Your task to perform on an android device: Search for handmade jewelry on Etsy. Image 0: 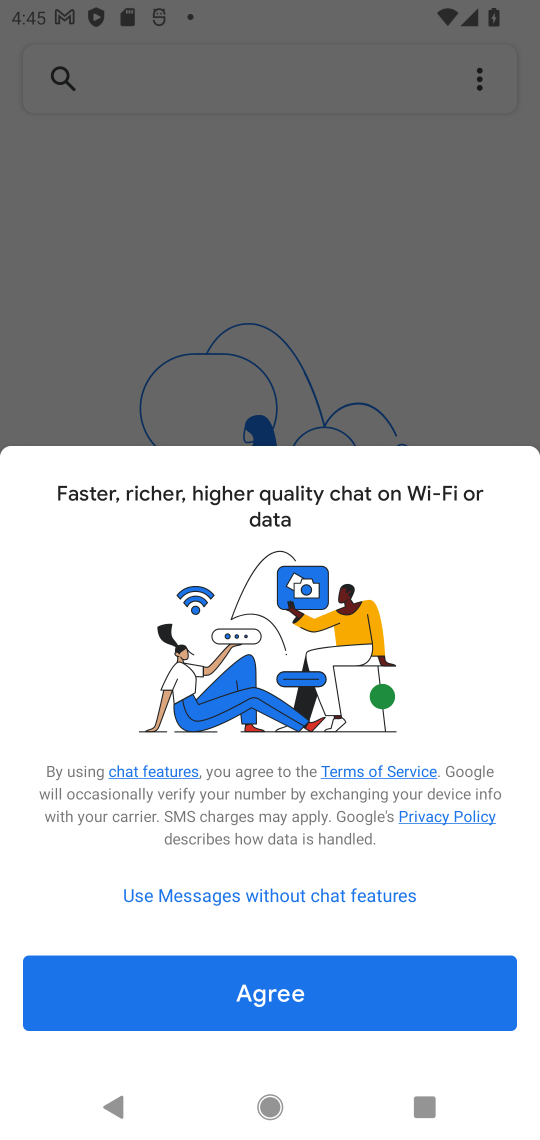
Step 0: press home button
Your task to perform on an android device: Search for handmade jewelry on Etsy. Image 1: 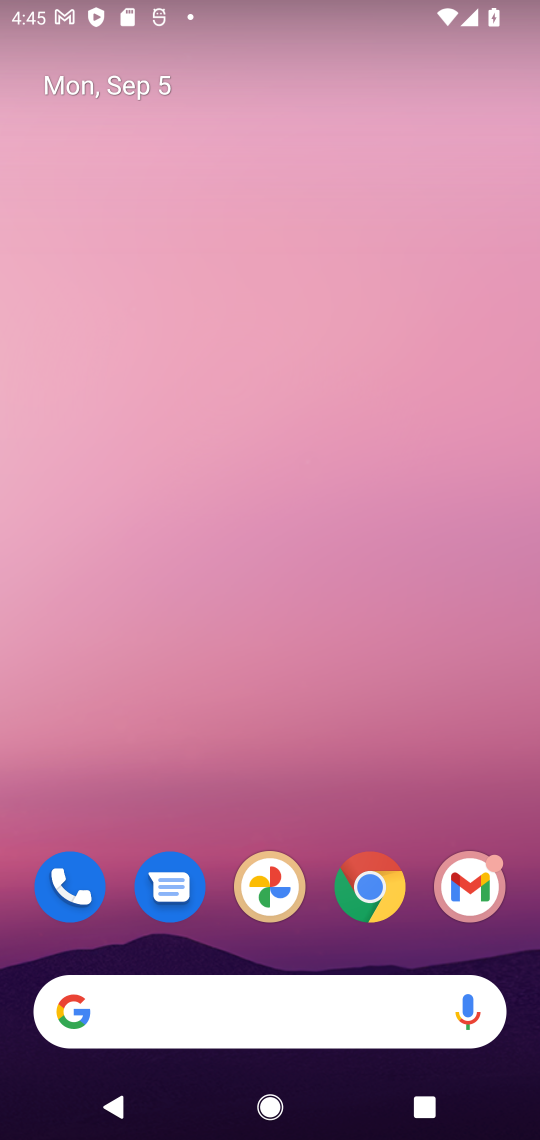
Step 1: drag from (260, 316) to (261, 129)
Your task to perform on an android device: Search for handmade jewelry on Etsy. Image 2: 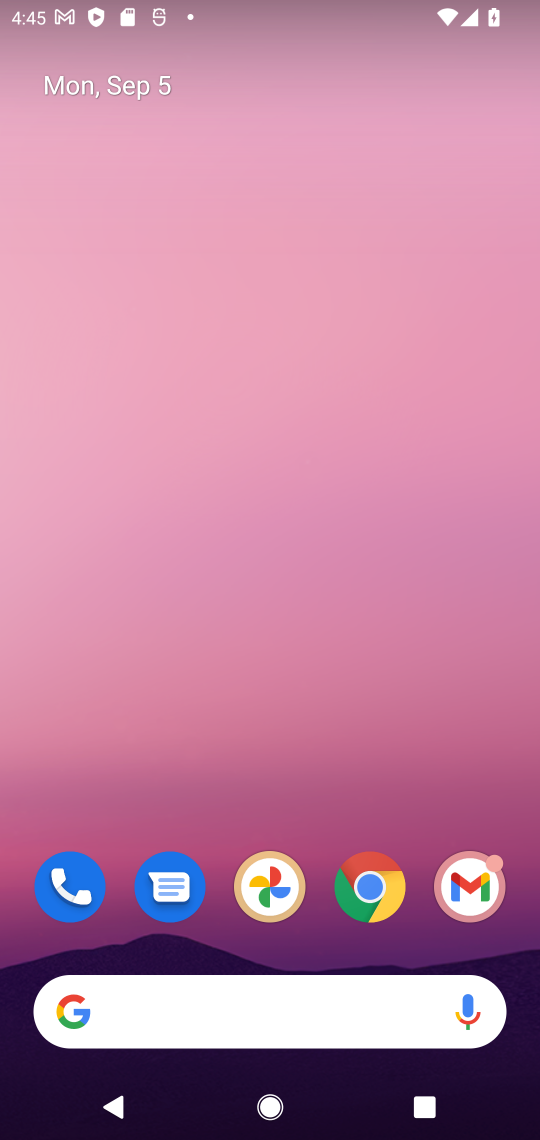
Step 2: drag from (305, 759) to (254, 108)
Your task to perform on an android device: Search for handmade jewelry on Etsy. Image 3: 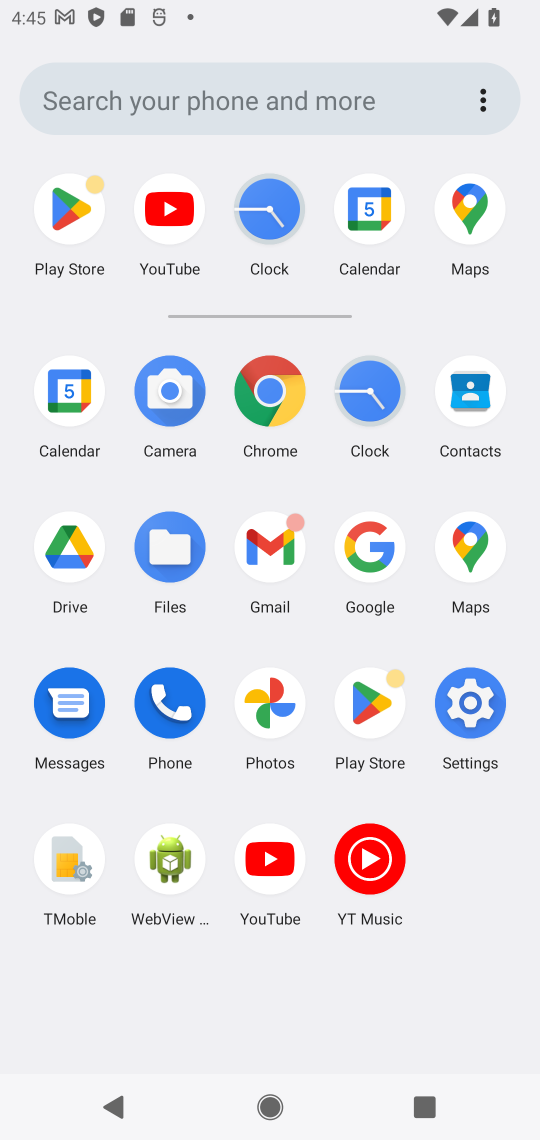
Step 3: click (263, 398)
Your task to perform on an android device: Search for handmade jewelry on Etsy. Image 4: 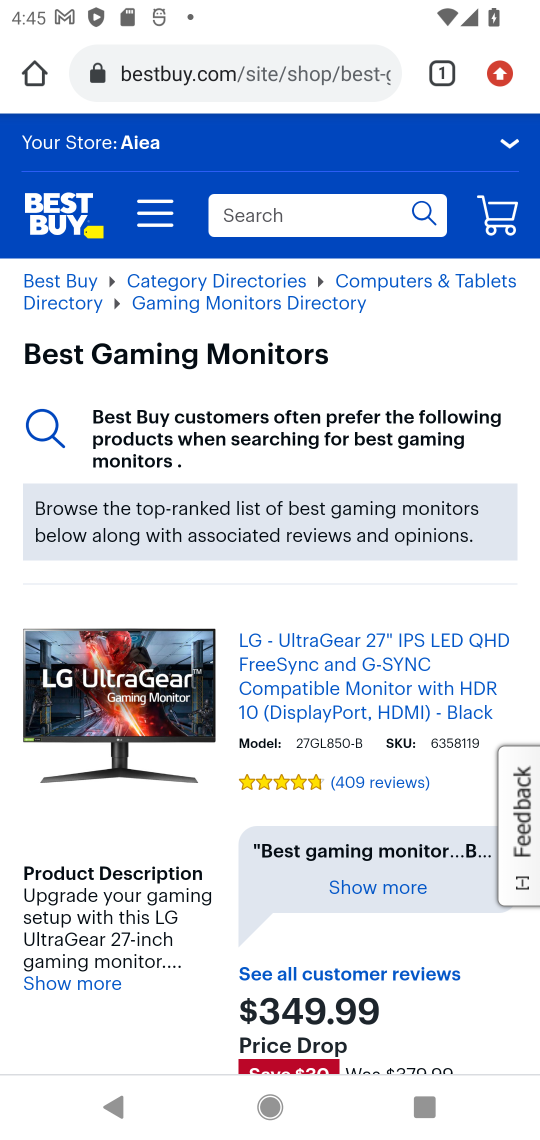
Step 4: click (265, 68)
Your task to perform on an android device: Search for handmade jewelry on Etsy. Image 5: 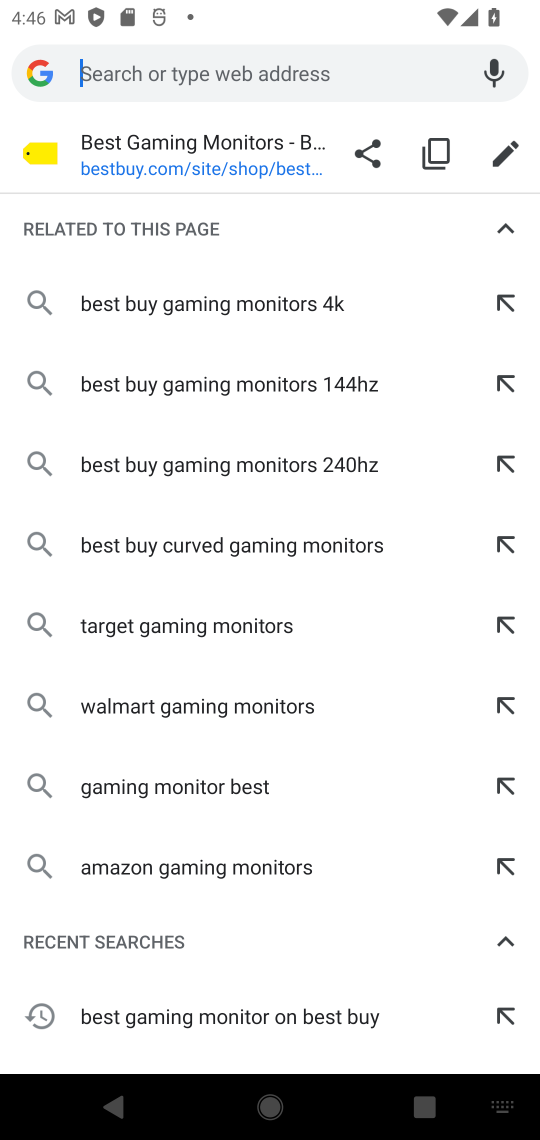
Step 5: type "handmade jewelry on Etsy"
Your task to perform on an android device: Search for handmade jewelry on Etsy. Image 6: 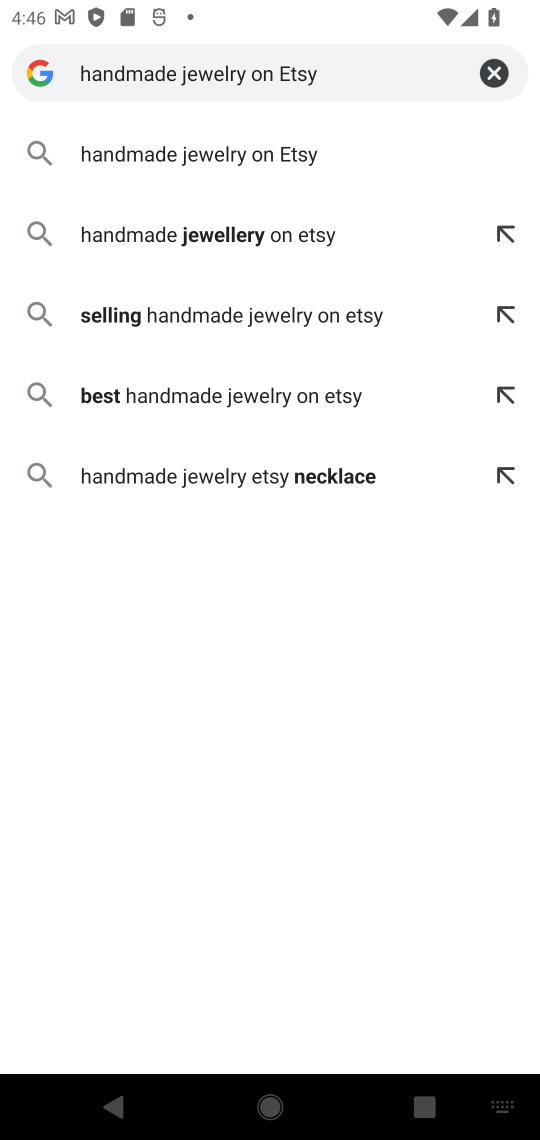
Step 6: press enter
Your task to perform on an android device: Search for handmade jewelry on Etsy. Image 7: 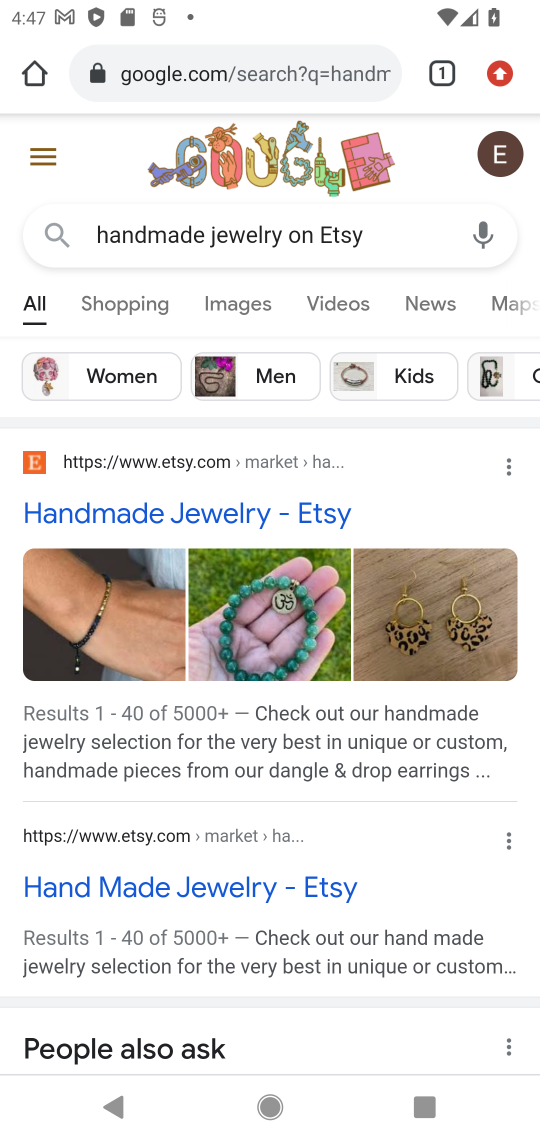
Step 7: click (227, 505)
Your task to perform on an android device: Search for handmade jewelry on Etsy. Image 8: 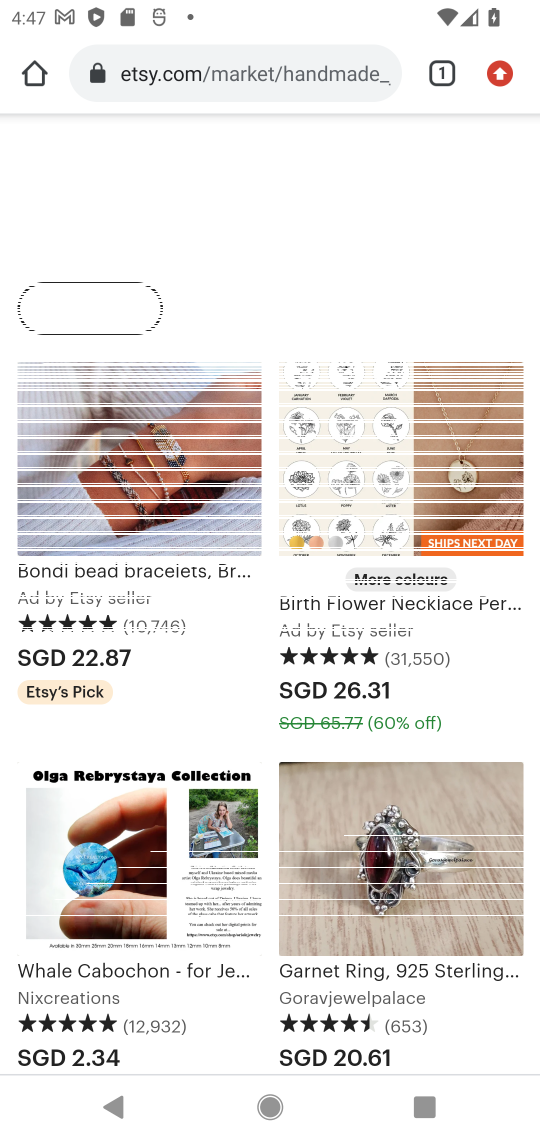
Step 8: task complete